Your task to perform on an android device: add a contact Image 0: 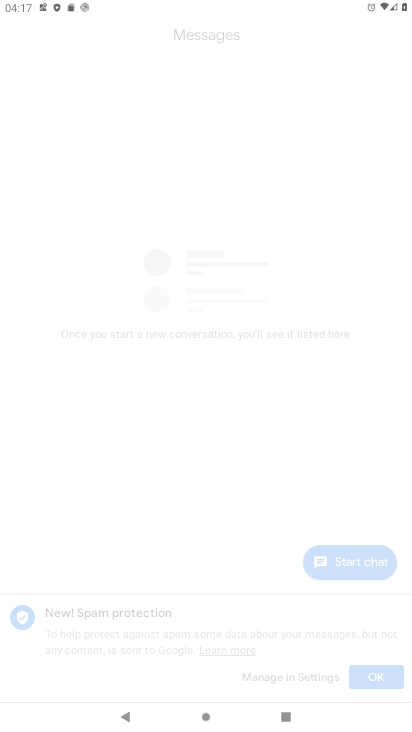
Step 0: drag from (396, 708) to (290, 103)
Your task to perform on an android device: add a contact Image 1: 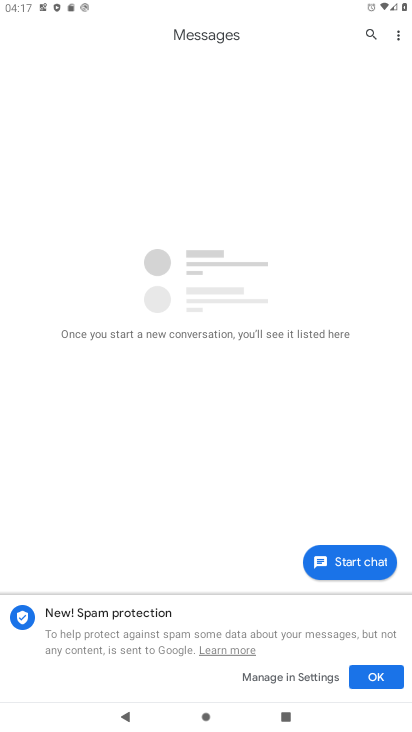
Step 1: press home button
Your task to perform on an android device: add a contact Image 2: 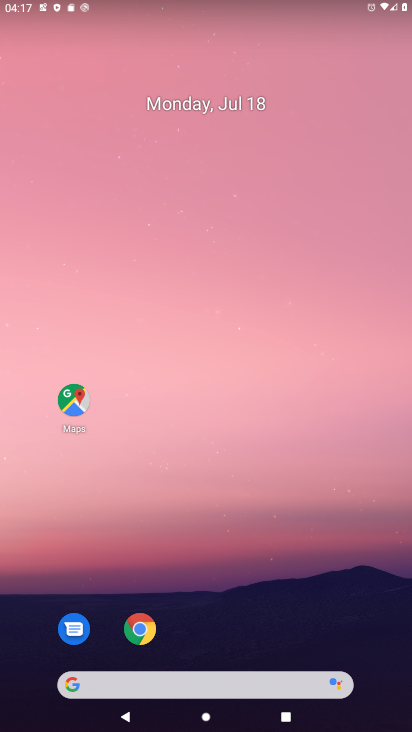
Step 2: drag from (391, 606) to (321, 26)
Your task to perform on an android device: add a contact Image 3: 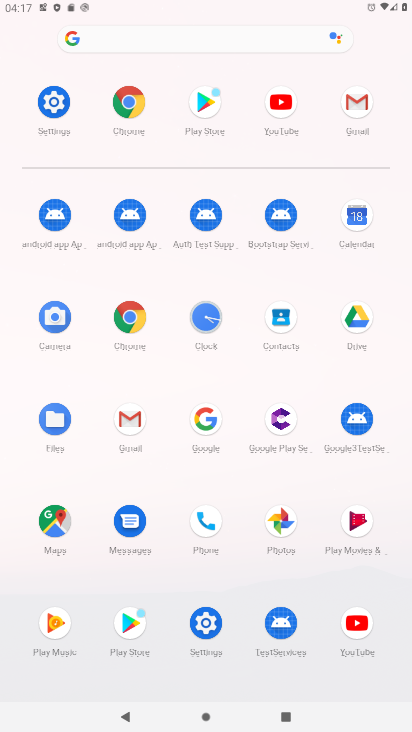
Step 3: click (278, 320)
Your task to perform on an android device: add a contact Image 4: 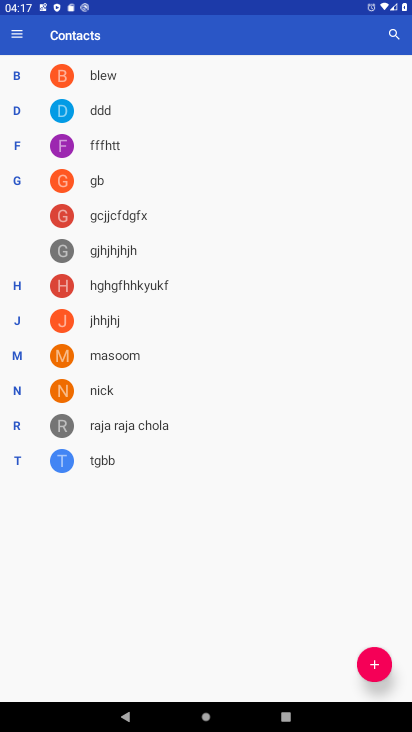
Step 4: click (376, 670)
Your task to perform on an android device: add a contact Image 5: 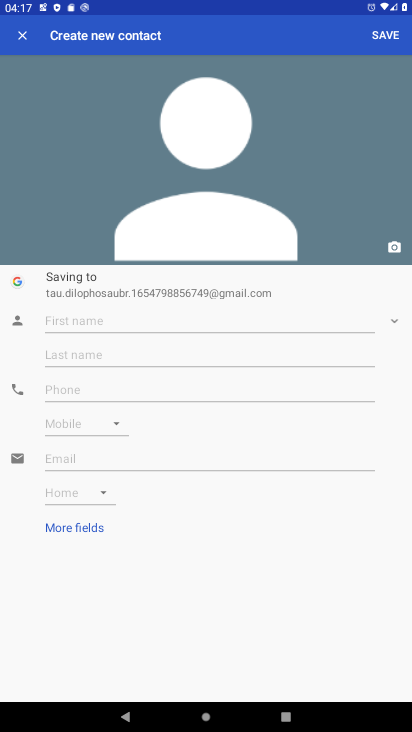
Step 5: click (117, 312)
Your task to perform on an android device: add a contact Image 6: 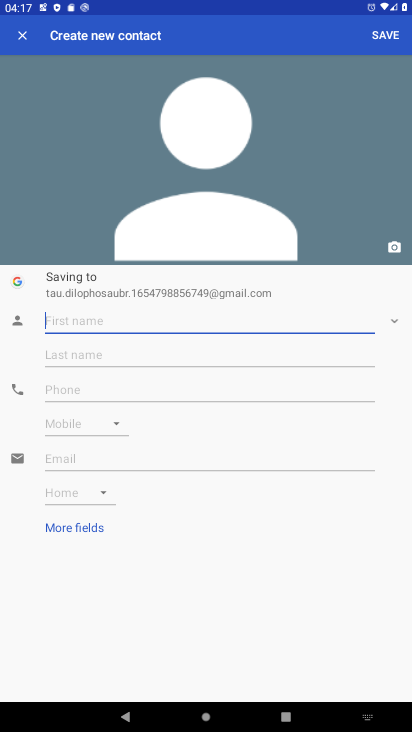
Step 6: type "dfhgfjyvgv"
Your task to perform on an android device: add a contact Image 7: 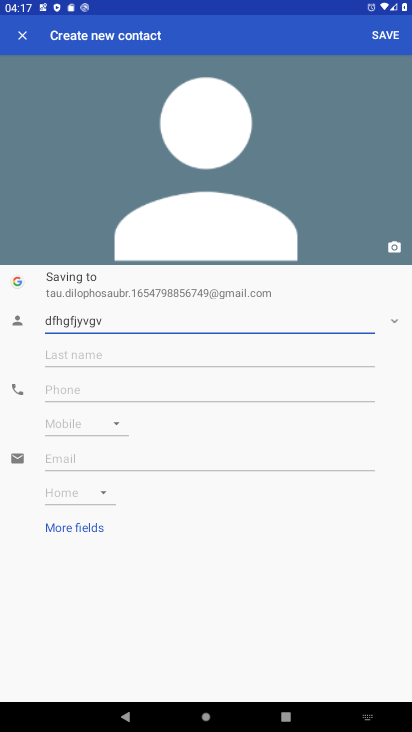
Step 7: click (116, 350)
Your task to perform on an android device: add a contact Image 8: 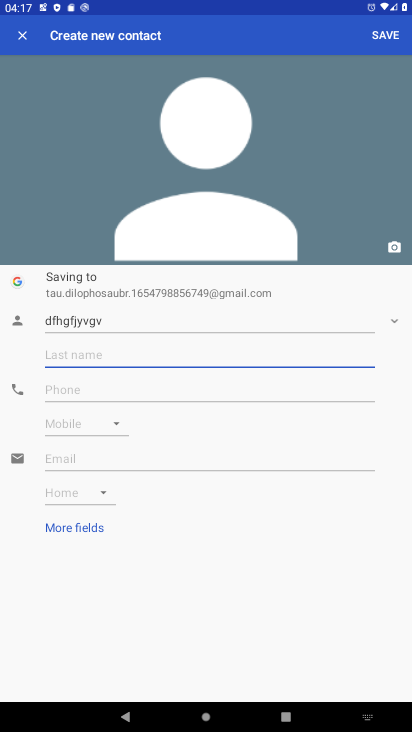
Step 8: type "fycukghvj"
Your task to perform on an android device: add a contact Image 9: 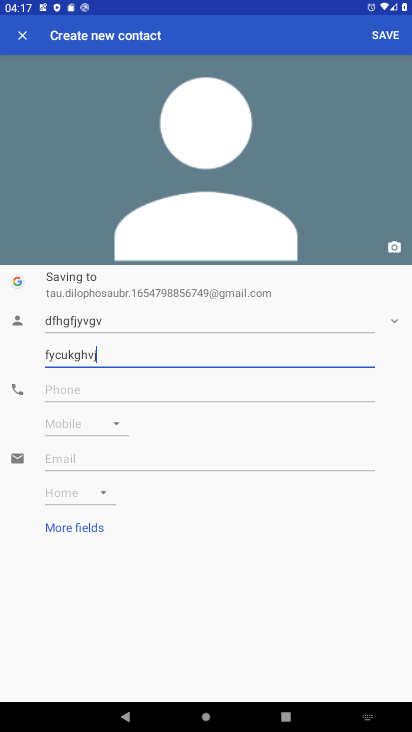
Step 9: click (66, 388)
Your task to perform on an android device: add a contact Image 10: 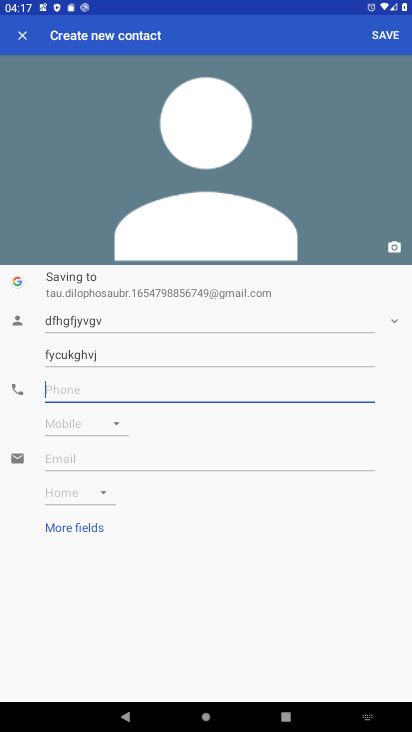
Step 10: type "6767887788"
Your task to perform on an android device: add a contact Image 11: 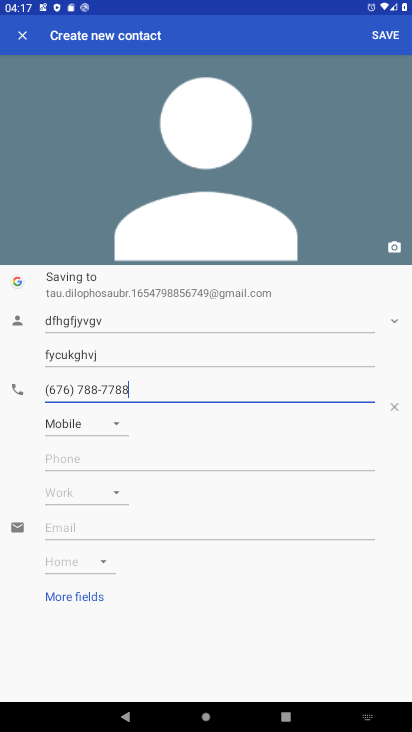
Step 11: click (392, 28)
Your task to perform on an android device: add a contact Image 12: 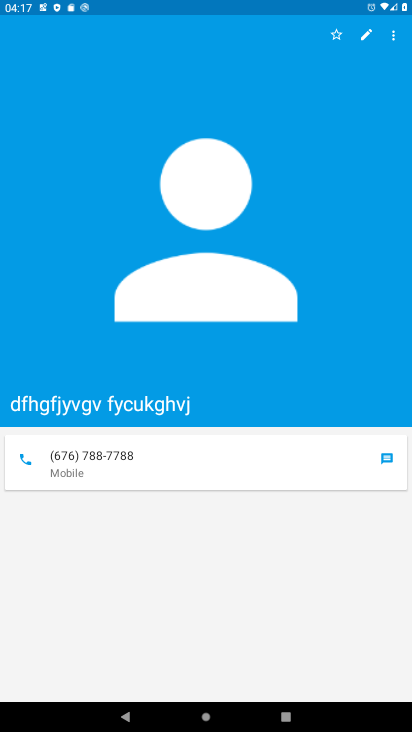
Step 12: task complete